Your task to perform on an android device: Open Maps and search for coffee Image 0: 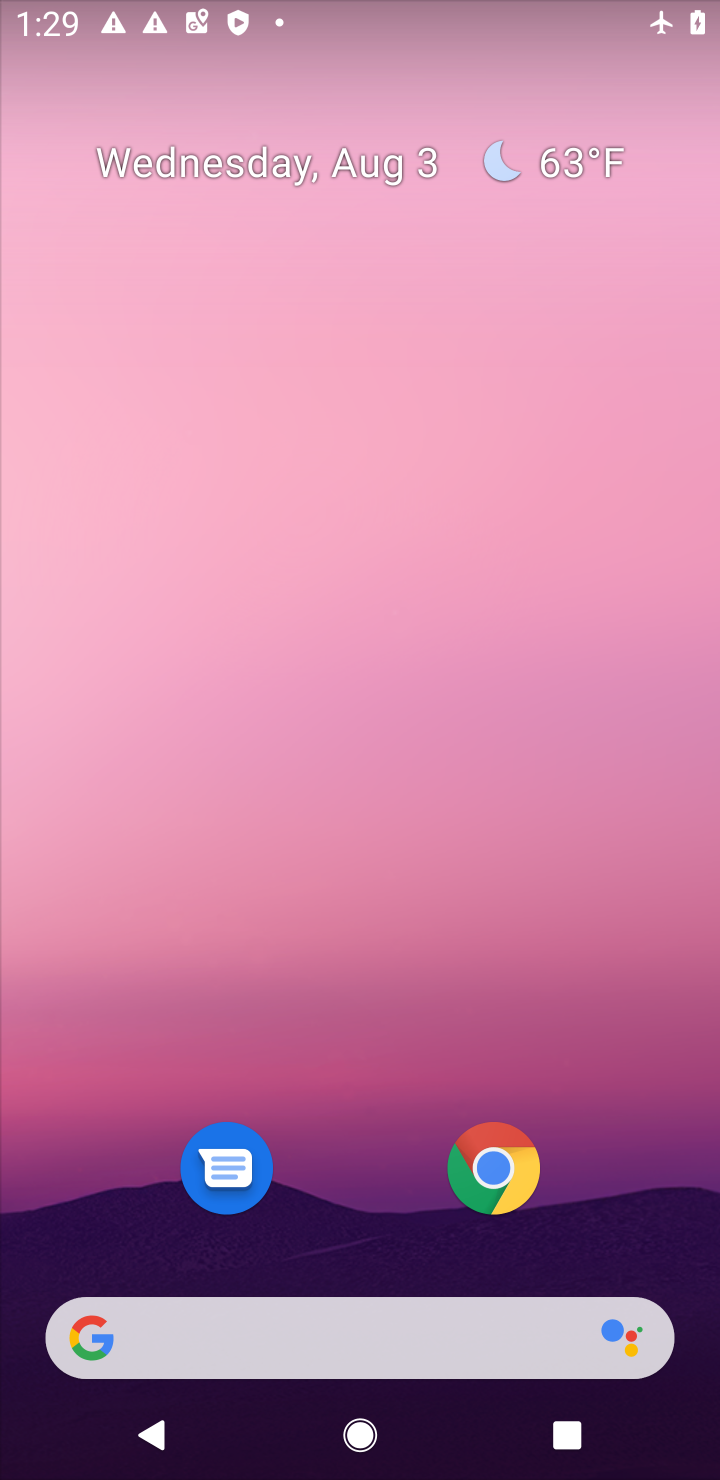
Step 0: drag from (635, 1006) to (587, 410)
Your task to perform on an android device: Open Maps and search for coffee Image 1: 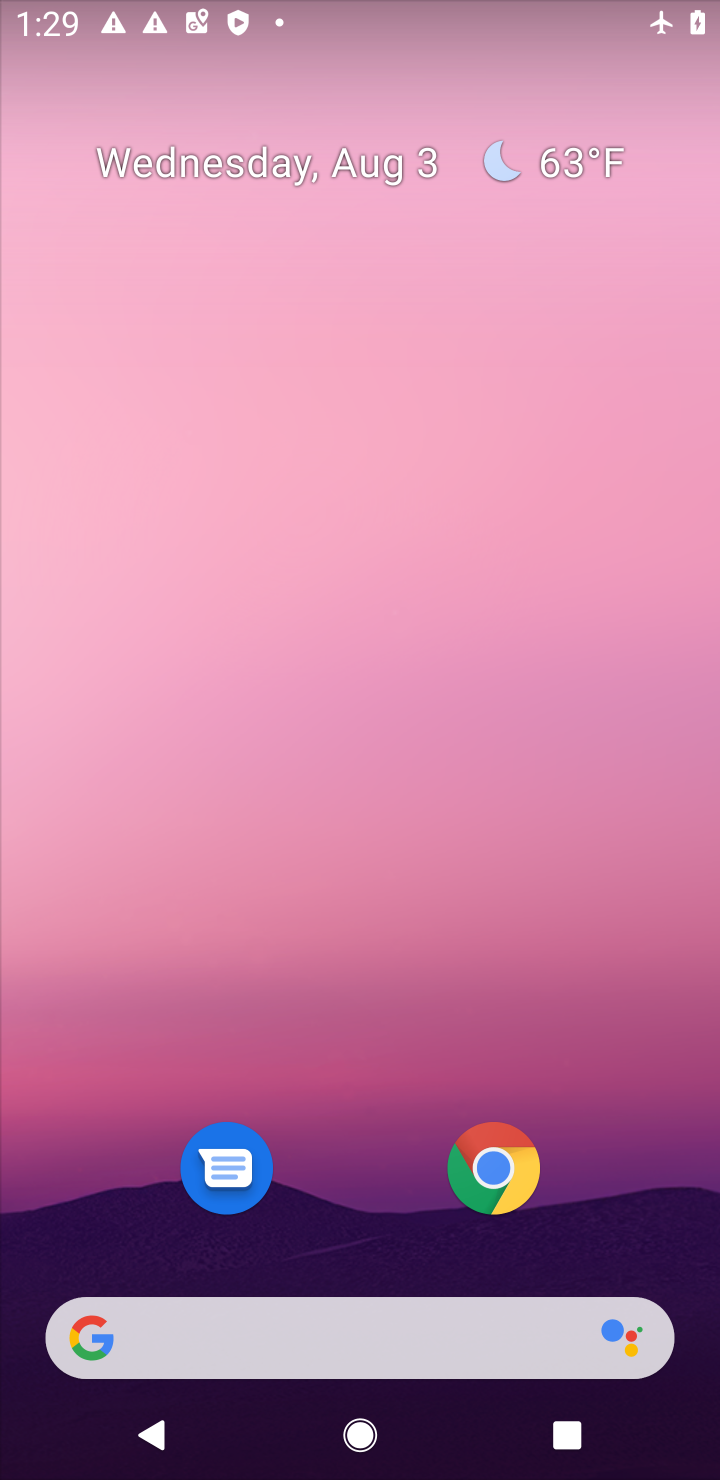
Step 1: drag from (663, 1220) to (654, 184)
Your task to perform on an android device: Open Maps and search for coffee Image 2: 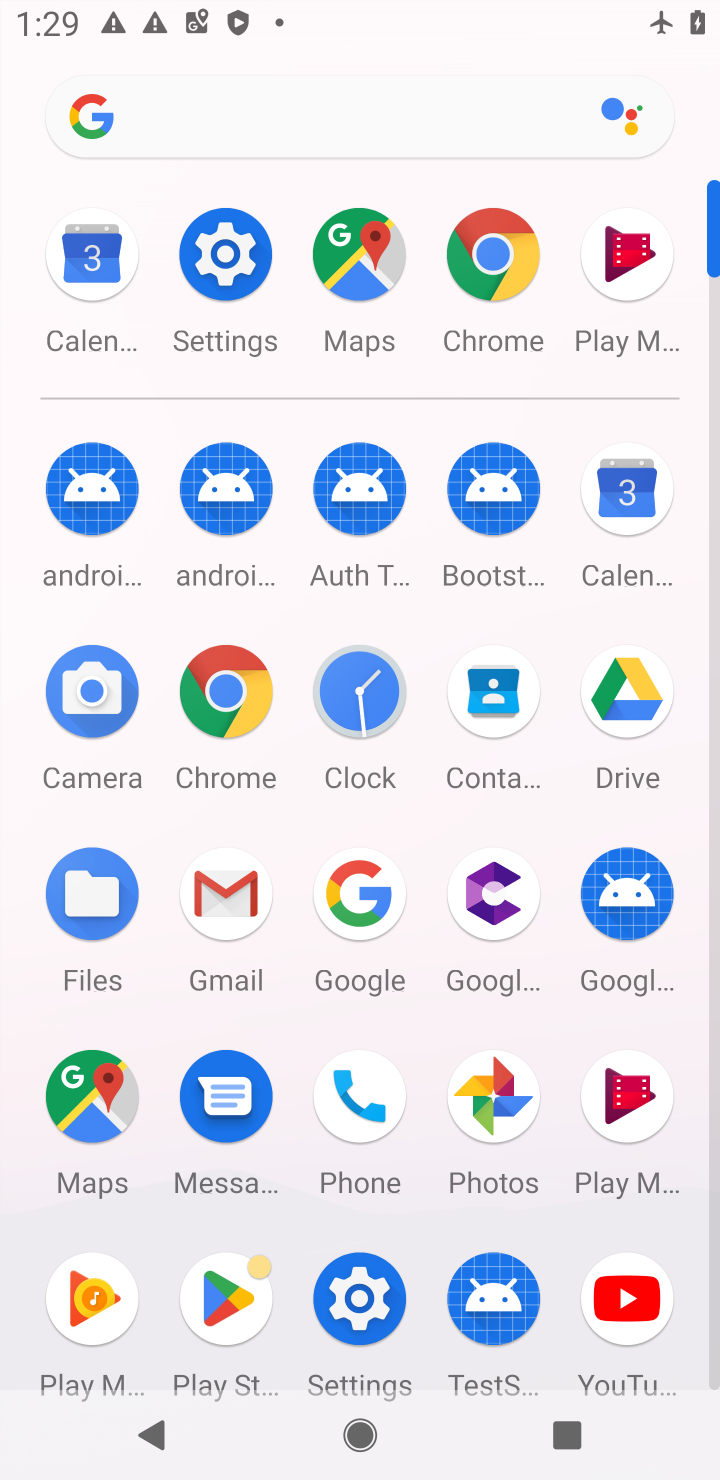
Step 2: click (87, 1100)
Your task to perform on an android device: Open Maps and search for coffee Image 3: 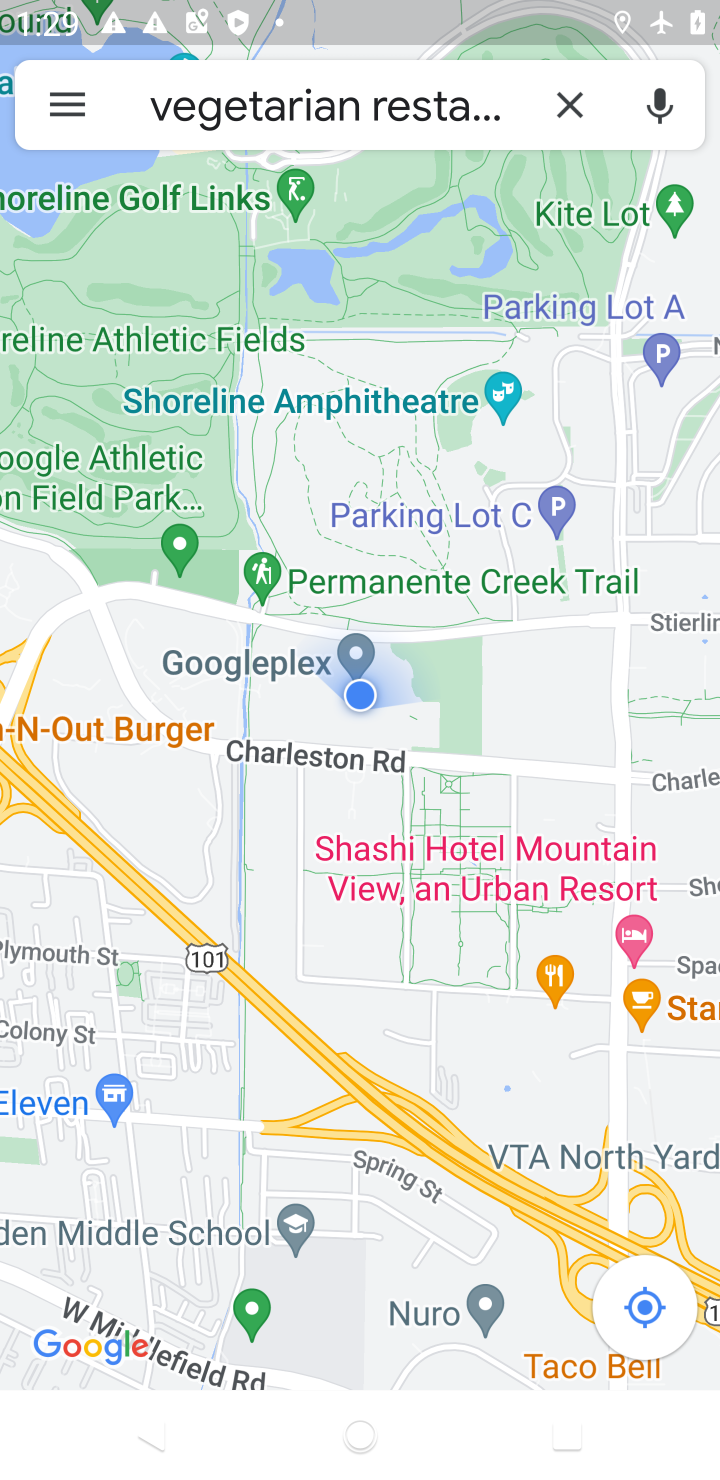
Step 3: click (571, 96)
Your task to perform on an android device: Open Maps and search for coffee Image 4: 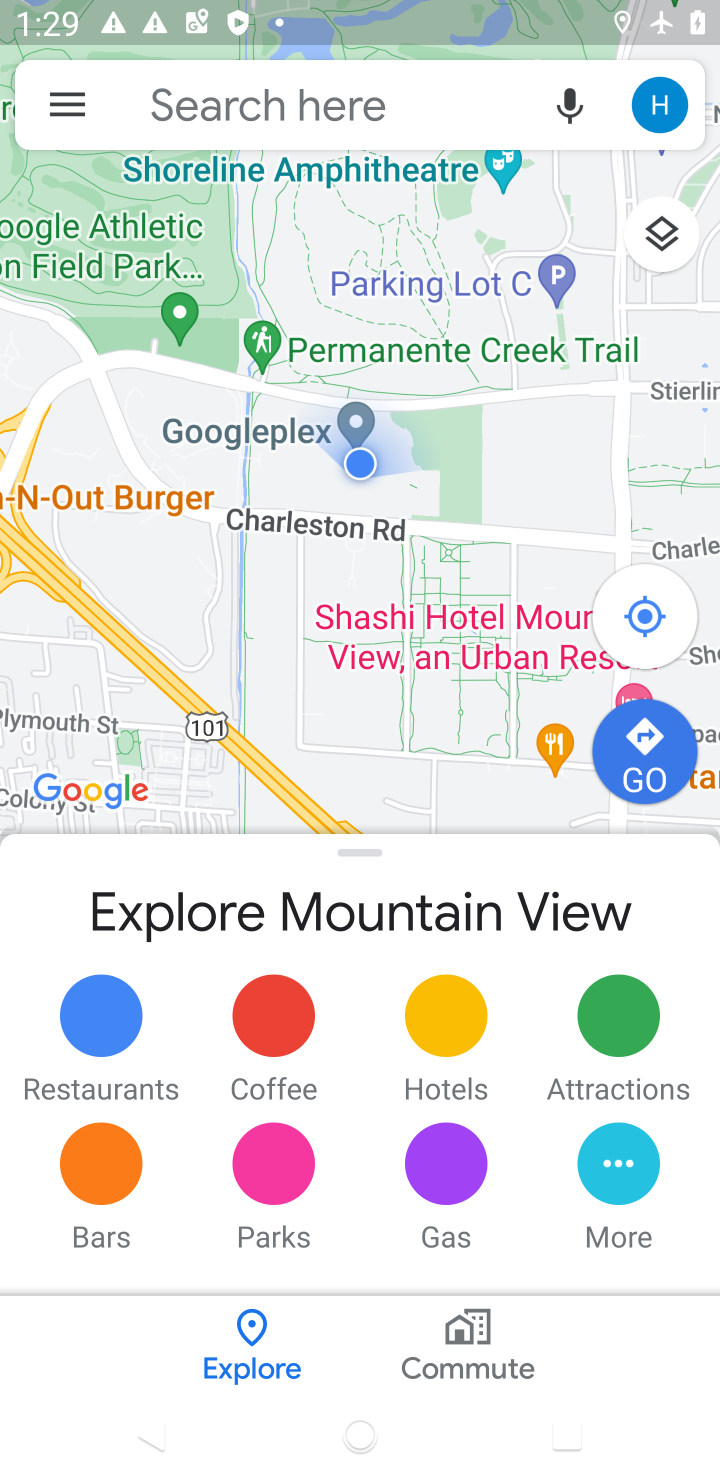
Step 4: click (273, 107)
Your task to perform on an android device: Open Maps and search for coffee Image 5: 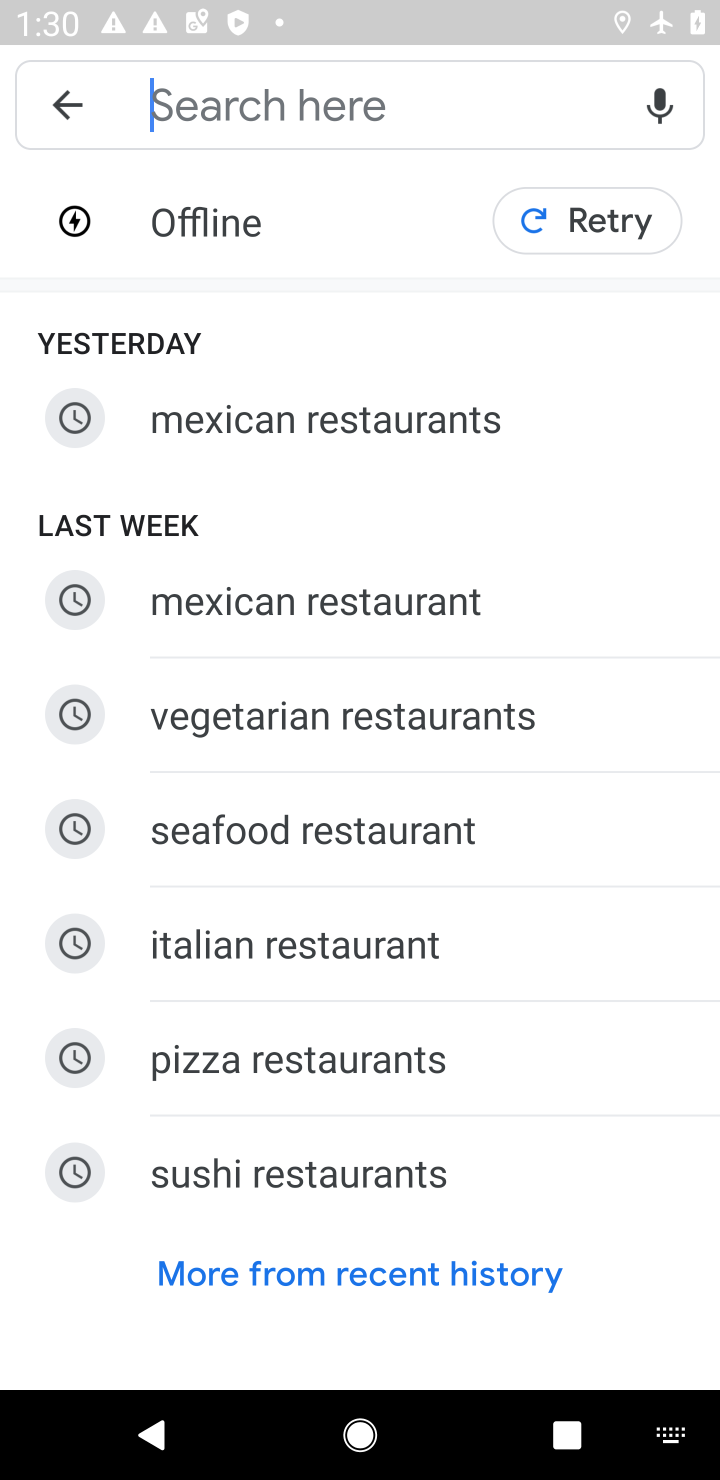
Step 5: type "coffee"
Your task to perform on an android device: Open Maps and search for coffee Image 6: 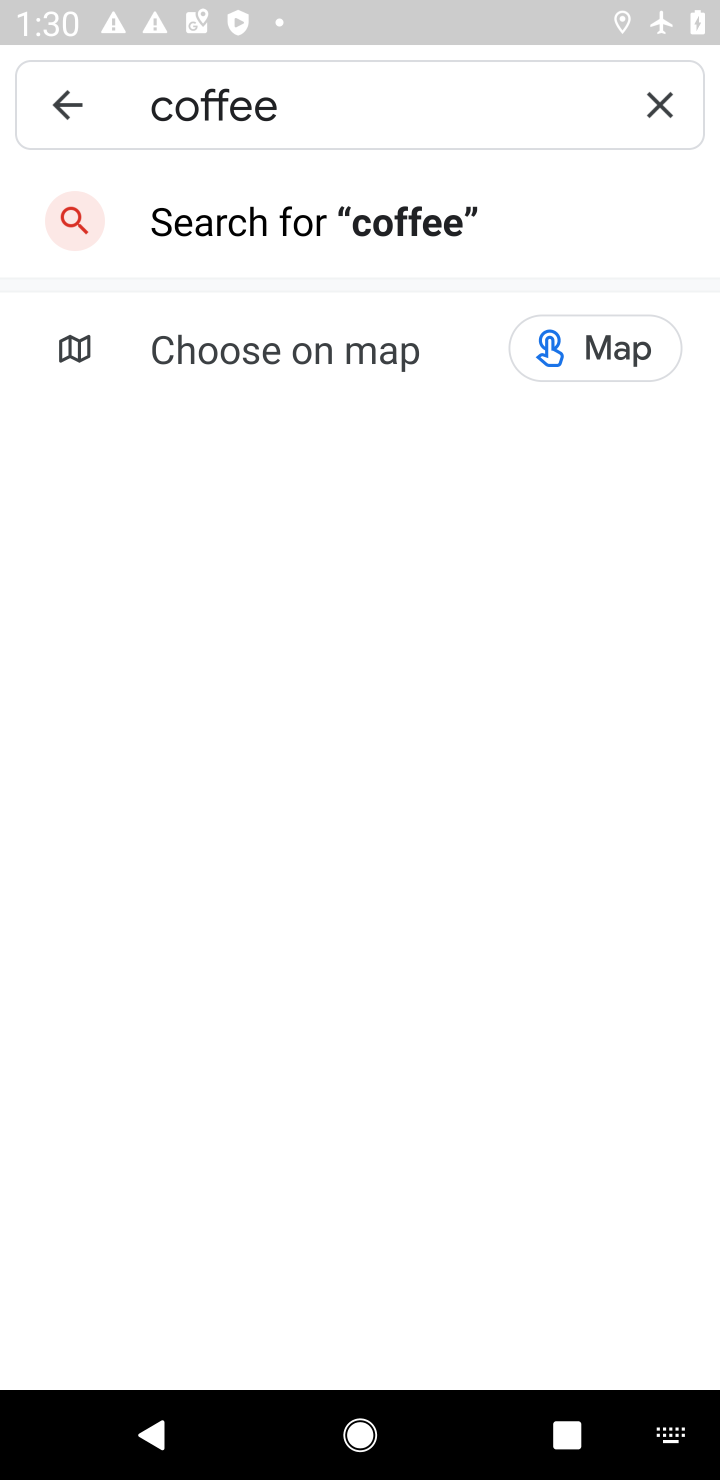
Step 6: click (422, 228)
Your task to perform on an android device: Open Maps and search for coffee Image 7: 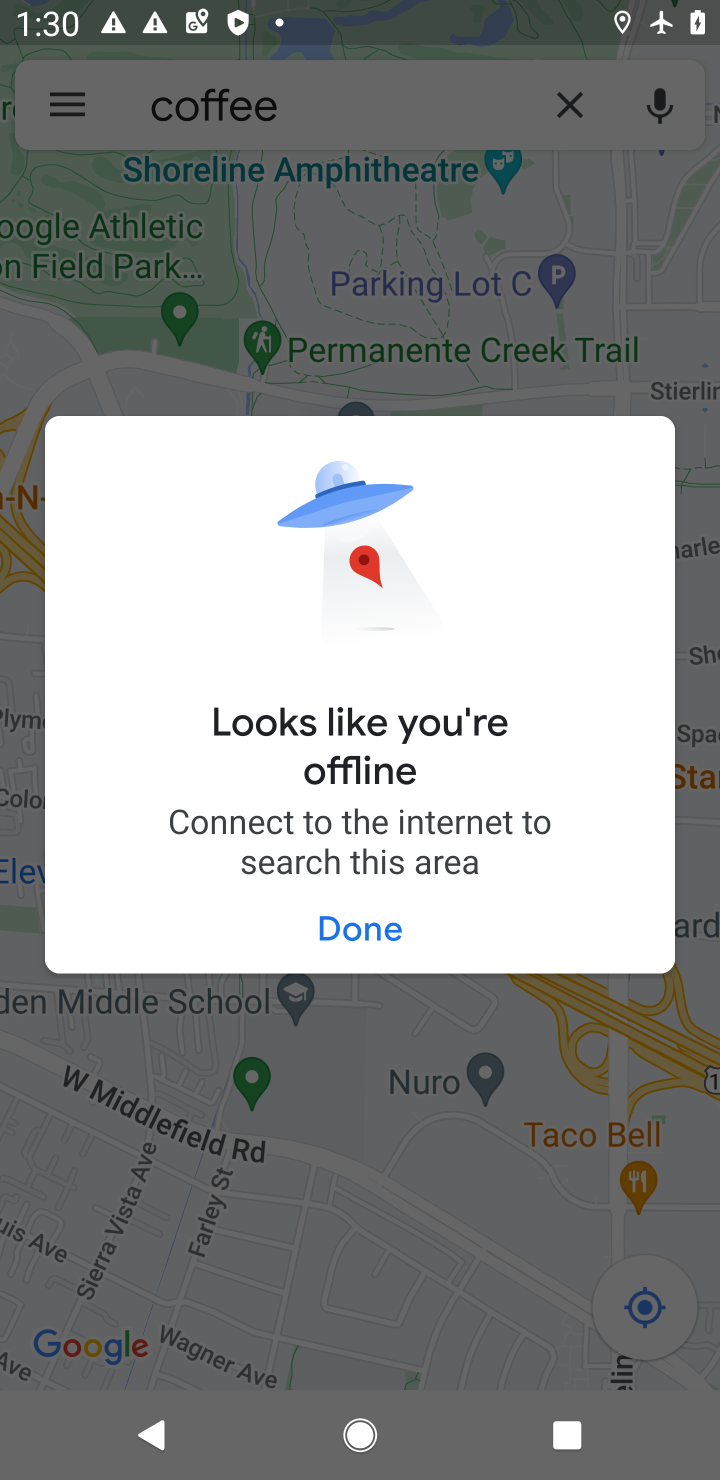
Step 7: click (340, 919)
Your task to perform on an android device: Open Maps and search for coffee Image 8: 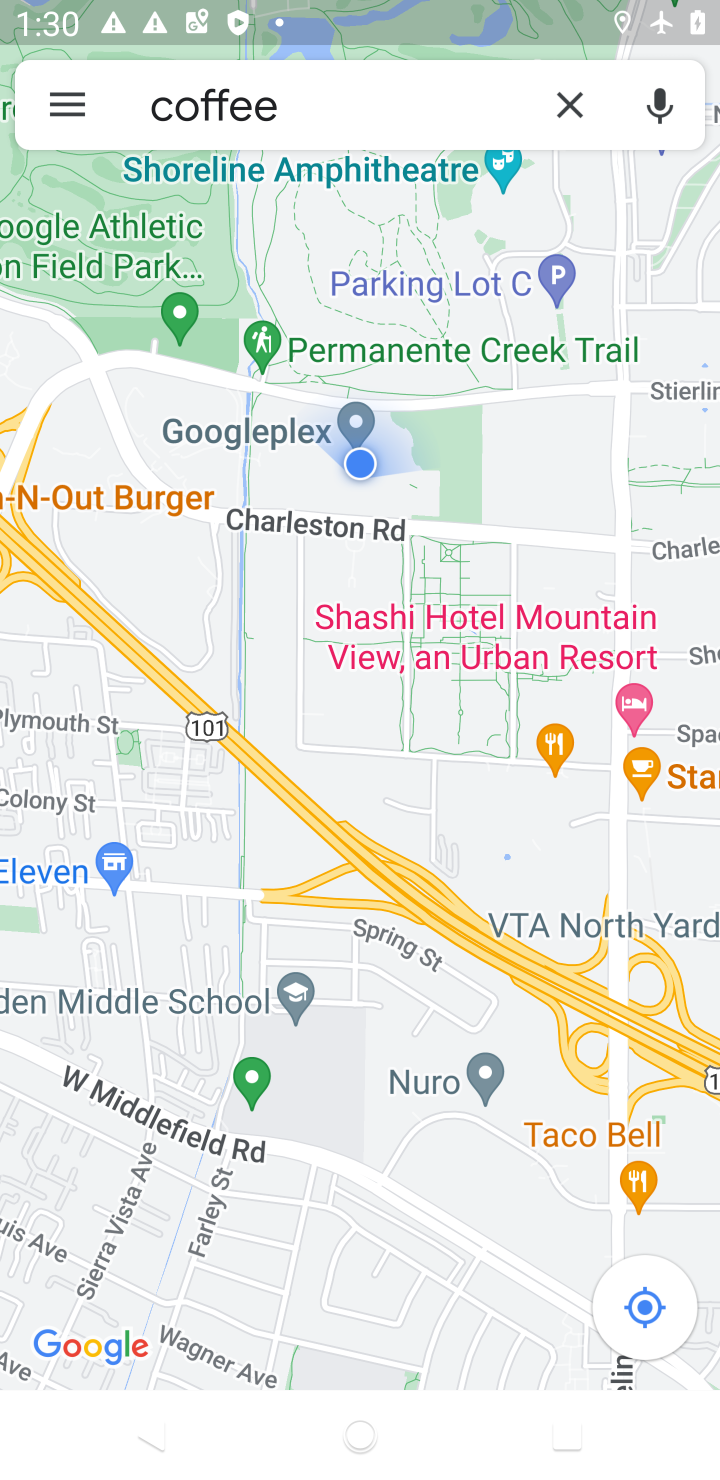
Step 8: task complete